Your task to perform on an android device: Search for seafood restaurants on Google Maps Image 0: 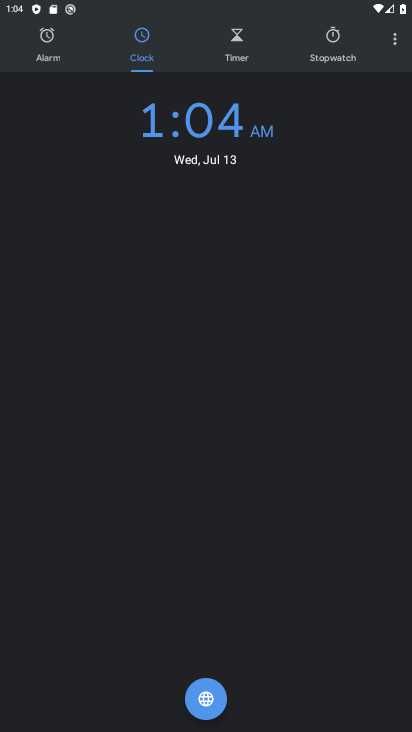
Step 0: press home button
Your task to perform on an android device: Search for seafood restaurants on Google Maps Image 1: 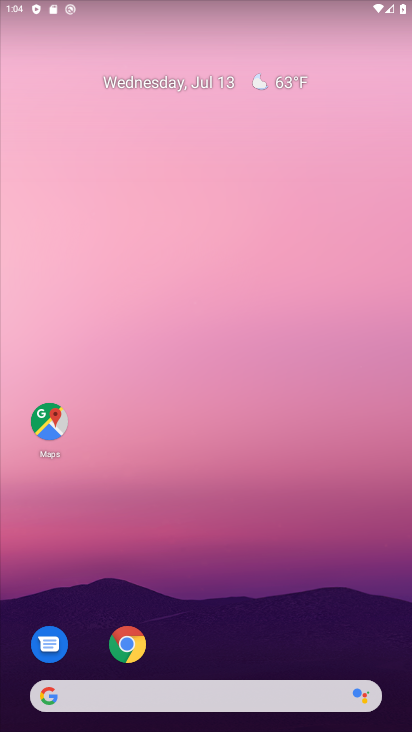
Step 1: drag from (196, 595) to (263, 184)
Your task to perform on an android device: Search for seafood restaurants on Google Maps Image 2: 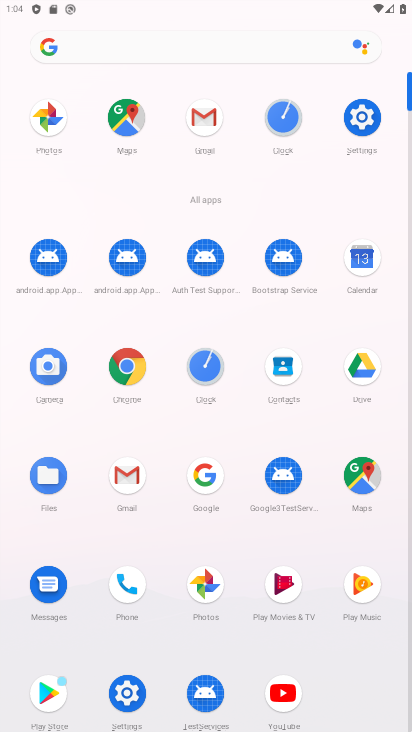
Step 2: click (368, 475)
Your task to perform on an android device: Search for seafood restaurants on Google Maps Image 3: 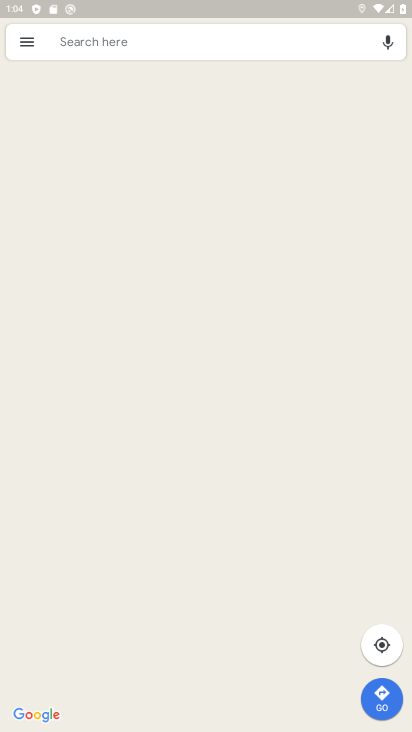
Step 3: click (116, 46)
Your task to perform on an android device: Search for seafood restaurants on Google Maps Image 4: 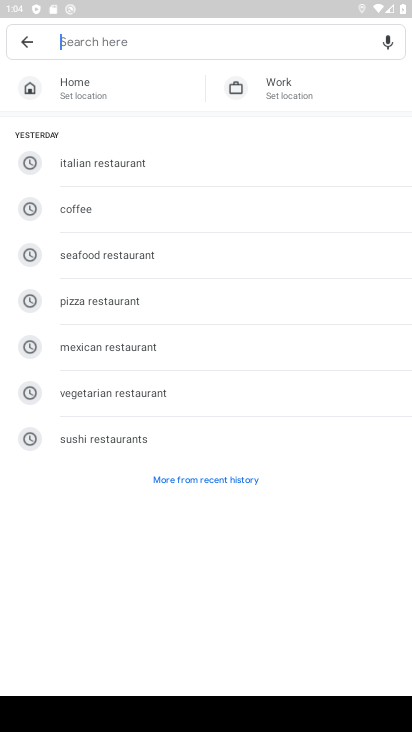
Step 4: type "seafood restaurants"
Your task to perform on an android device: Search for seafood restaurants on Google Maps Image 5: 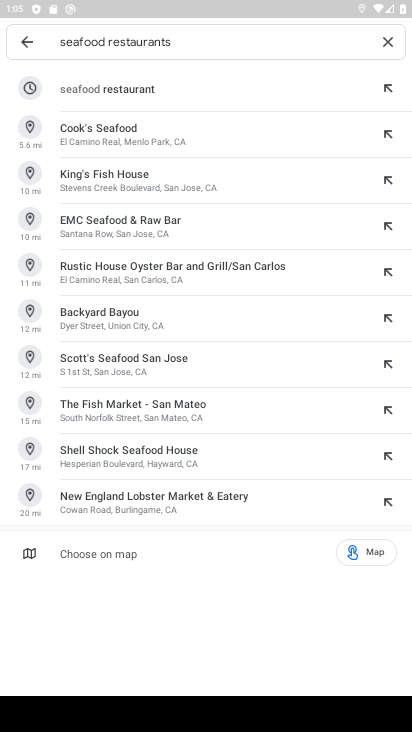
Step 5: click (165, 90)
Your task to perform on an android device: Search for seafood restaurants on Google Maps Image 6: 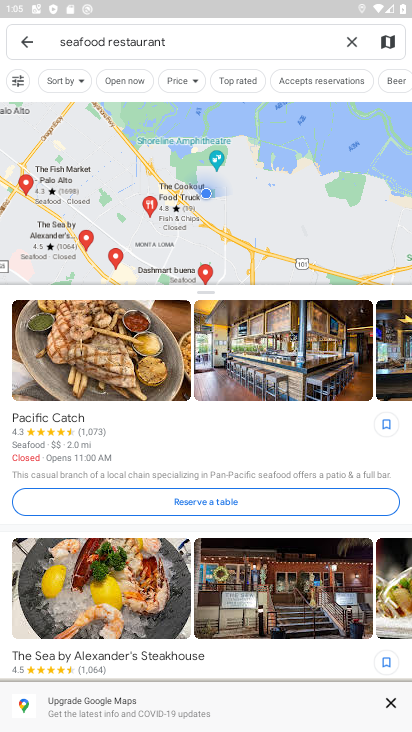
Step 6: task complete